Your task to perform on an android device: When is my next meeting? Image 0: 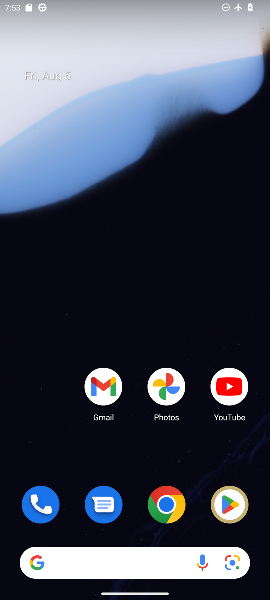
Step 0: drag from (134, 556) to (133, 4)
Your task to perform on an android device: When is my next meeting? Image 1: 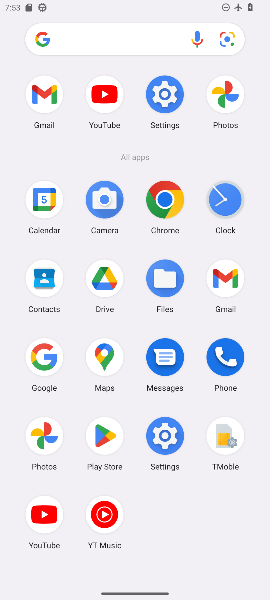
Step 1: click (39, 198)
Your task to perform on an android device: When is my next meeting? Image 2: 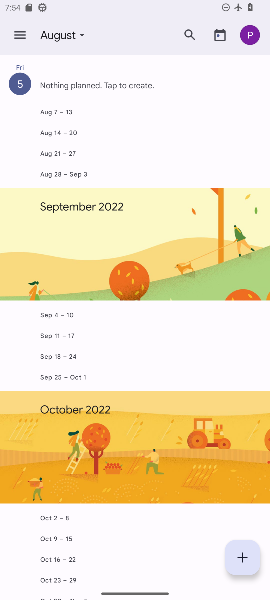
Step 2: task complete